Your task to perform on an android device: Go to Wikipedia Image 0: 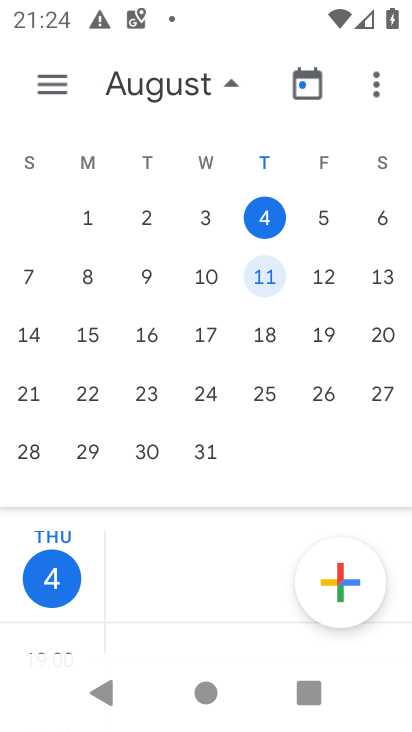
Step 0: press enter
Your task to perform on an android device: Go to Wikipedia Image 1: 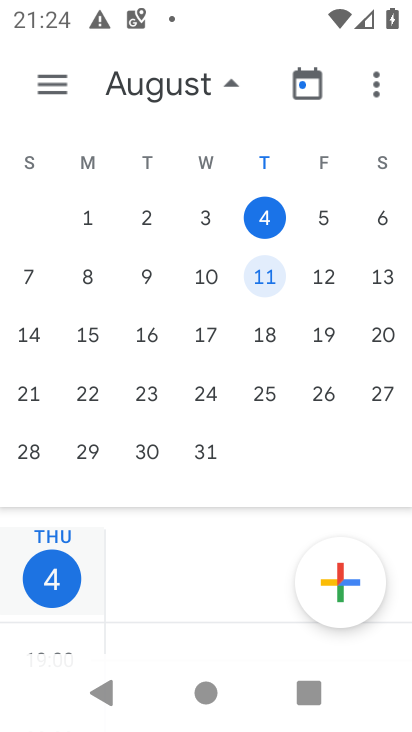
Step 1: press enter
Your task to perform on an android device: Go to Wikipedia Image 2: 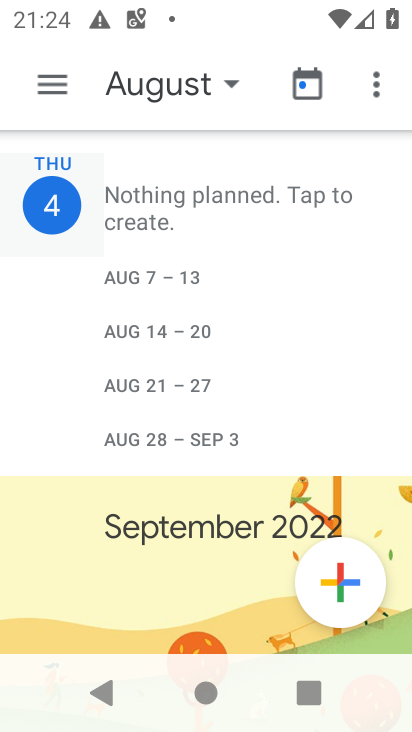
Step 2: press home button
Your task to perform on an android device: Go to Wikipedia Image 3: 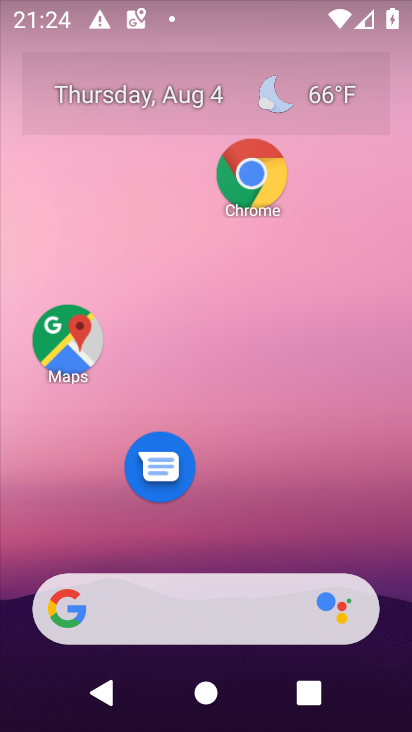
Step 3: drag from (261, 510) to (370, 10)
Your task to perform on an android device: Go to Wikipedia Image 4: 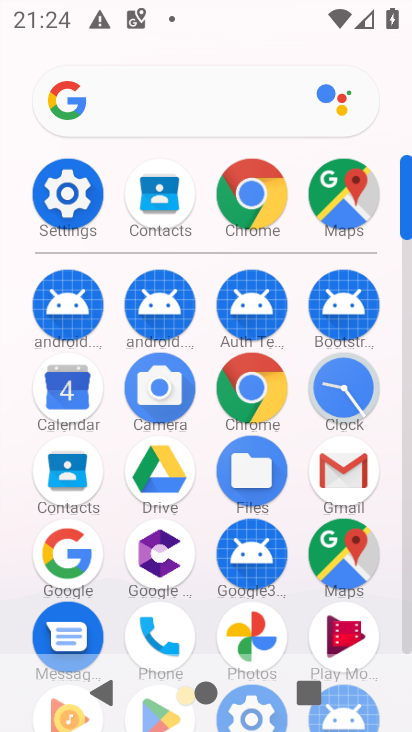
Step 4: click (247, 389)
Your task to perform on an android device: Go to Wikipedia Image 5: 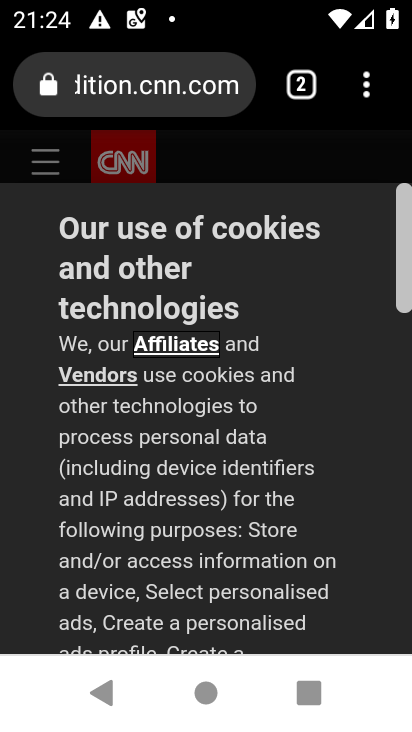
Step 5: click (168, 94)
Your task to perform on an android device: Go to Wikipedia Image 6: 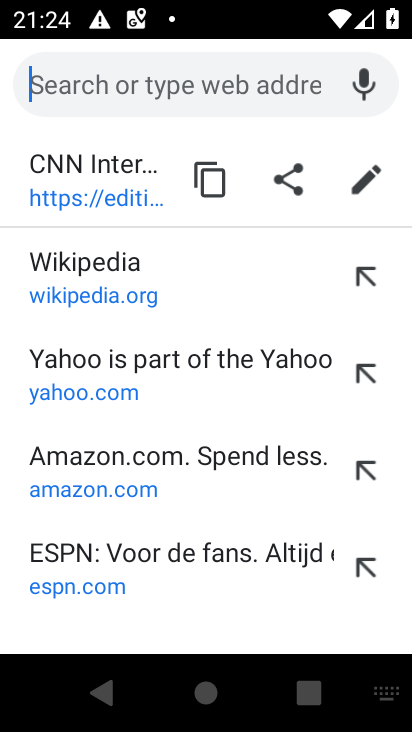
Step 6: type " Wikipedia"
Your task to perform on an android device: Go to Wikipedia Image 7: 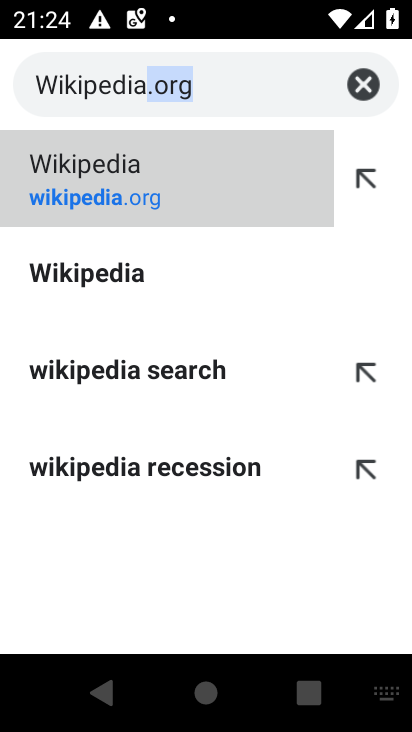
Step 7: click (118, 206)
Your task to perform on an android device: Go to Wikipedia Image 8: 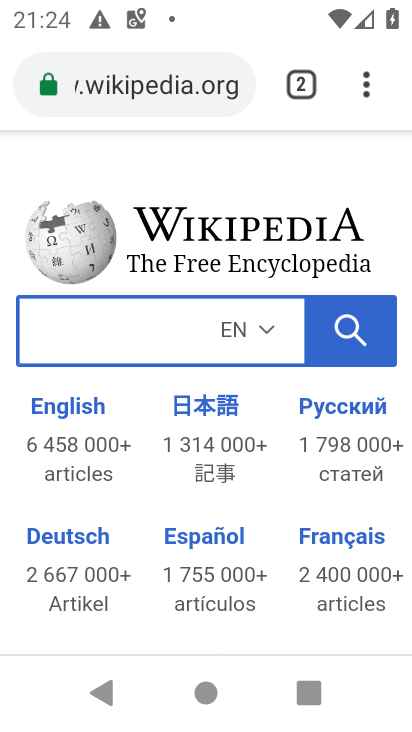
Step 8: task complete